Your task to perform on an android device: turn on the 12-hour format for clock Image 0: 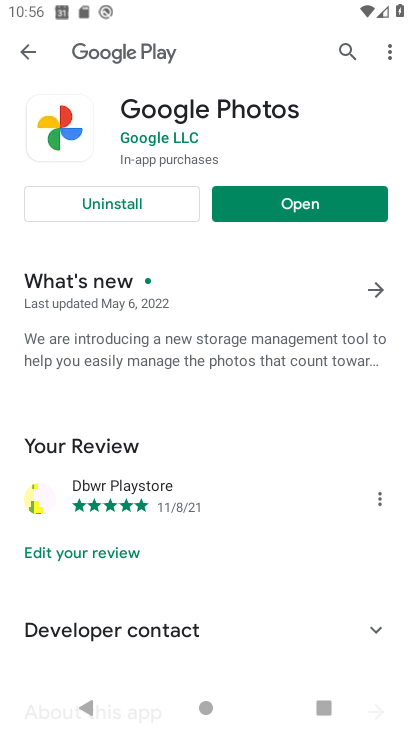
Step 0: press home button
Your task to perform on an android device: turn on the 12-hour format for clock Image 1: 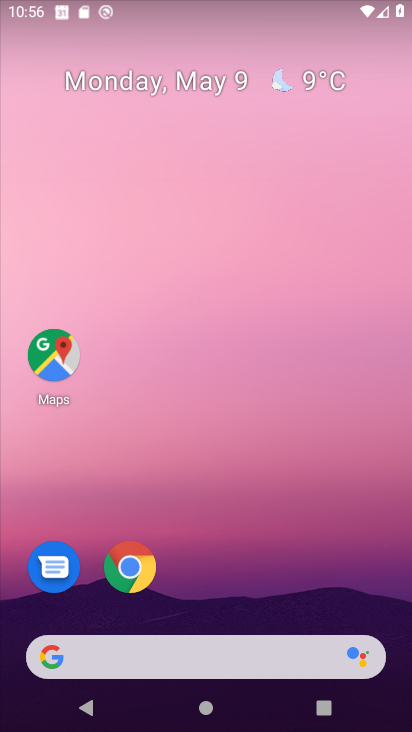
Step 1: drag from (192, 614) to (217, 27)
Your task to perform on an android device: turn on the 12-hour format for clock Image 2: 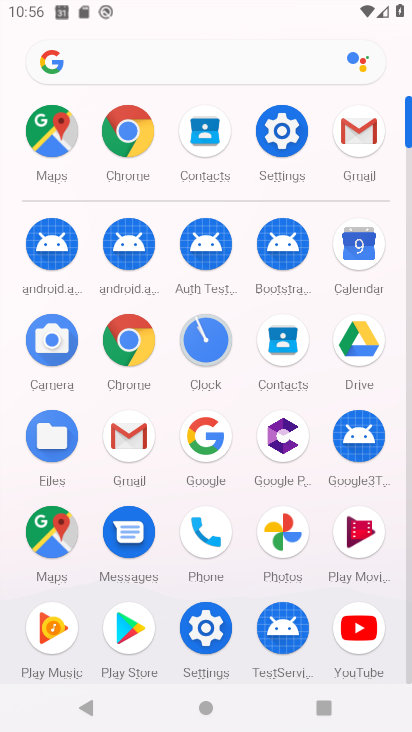
Step 2: click (204, 335)
Your task to perform on an android device: turn on the 12-hour format for clock Image 3: 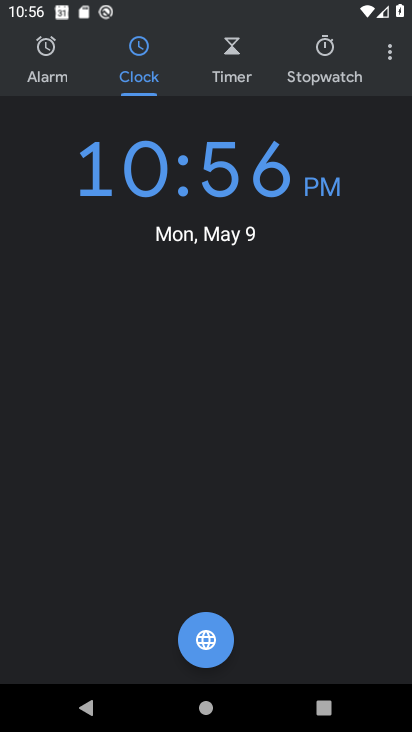
Step 3: click (391, 54)
Your task to perform on an android device: turn on the 12-hour format for clock Image 4: 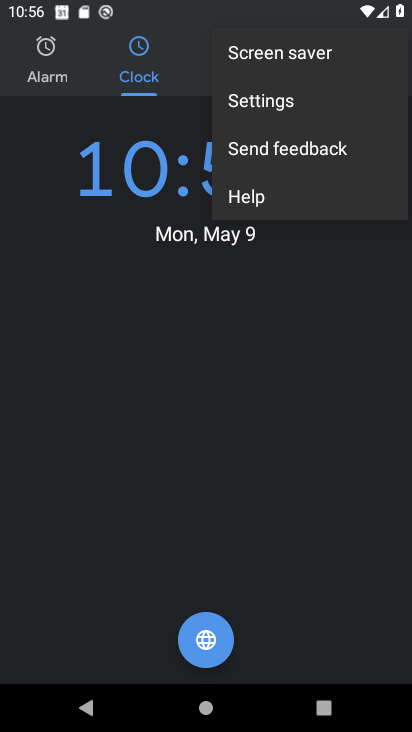
Step 4: click (269, 100)
Your task to perform on an android device: turn on the 12-hour format for clock Image 5: 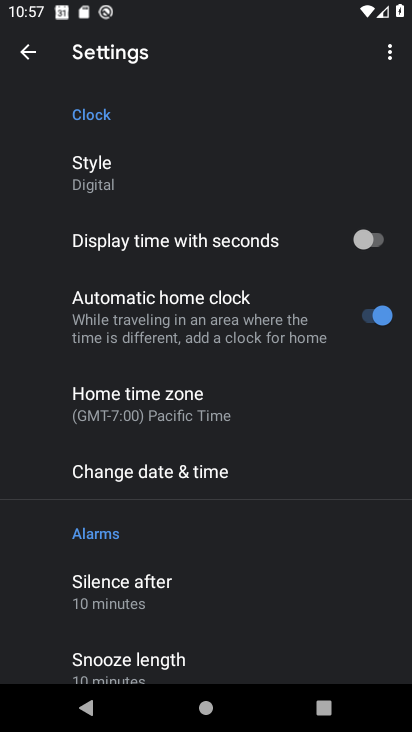
Step 5: click (182, 471)
Your task to perform on an android device: turn on the 12-hour format for clock Image 6: 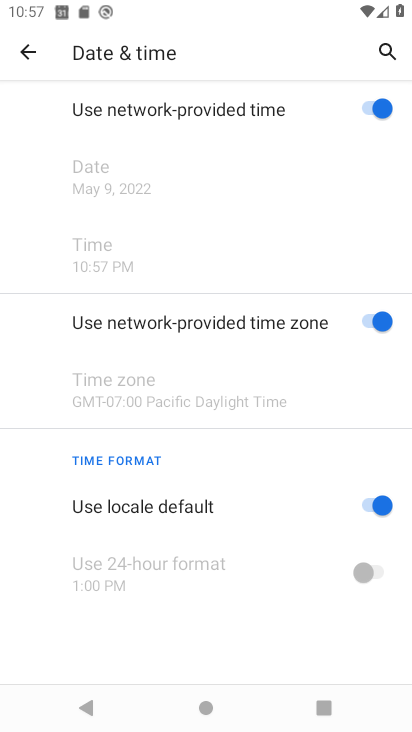
Step 6: task complete